Your task to perform on an android device: Go to sound settings Image 0: 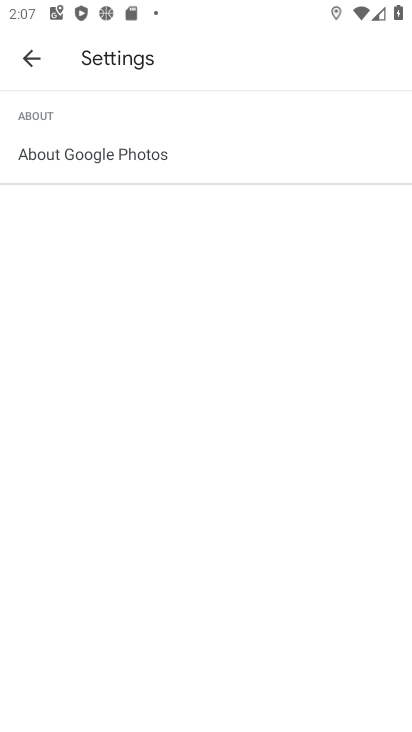
Step 0: press home button
Your task to perform on an android device: Go to sound settings Image 1: 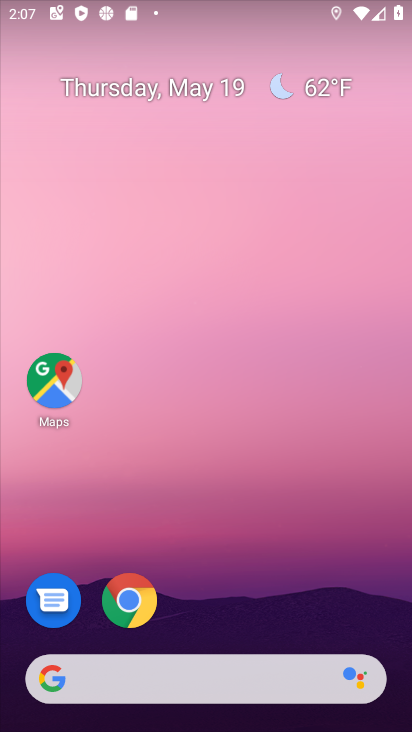
Step 1: drag from (41, 561) to (219, 134)
Your task to perform on an android device: Go to sound settings Image 2: 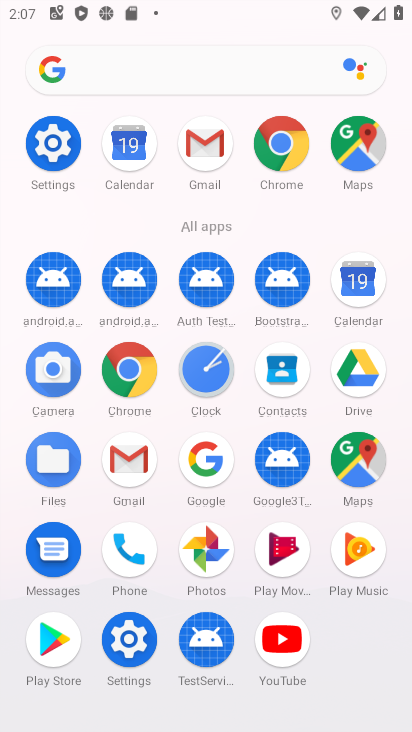
Step 2: click (37, 146)
Your task to perform on an android device: Go to sound settings Image 3: 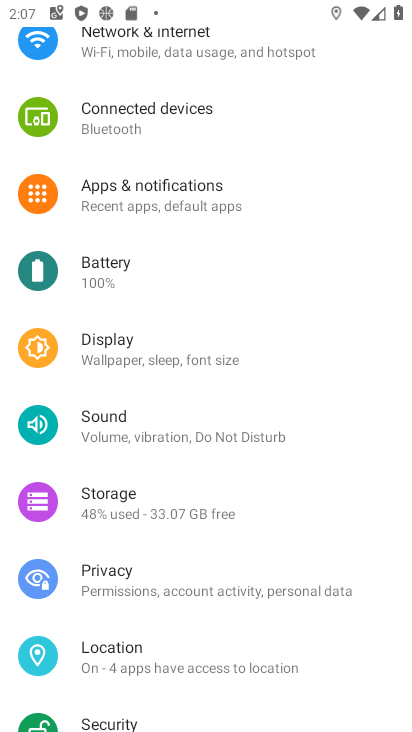
Step 3: click (134, 423)
Your task to perform on an android device: Go to sound settings Image 4: 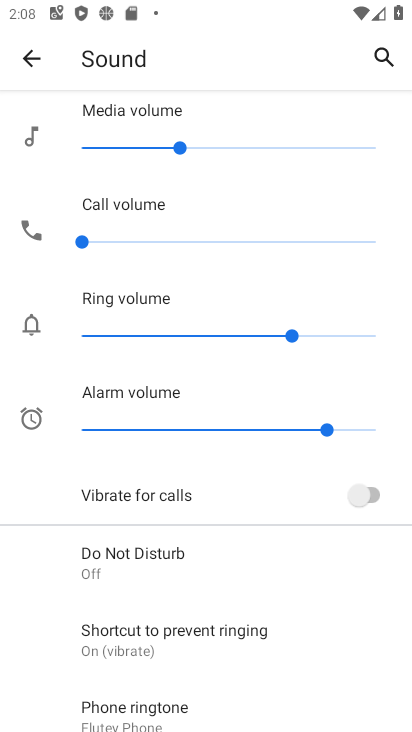
Step 4: task complete